Your task to perform on an android device: open a bookmark in the chrome app Image 0: 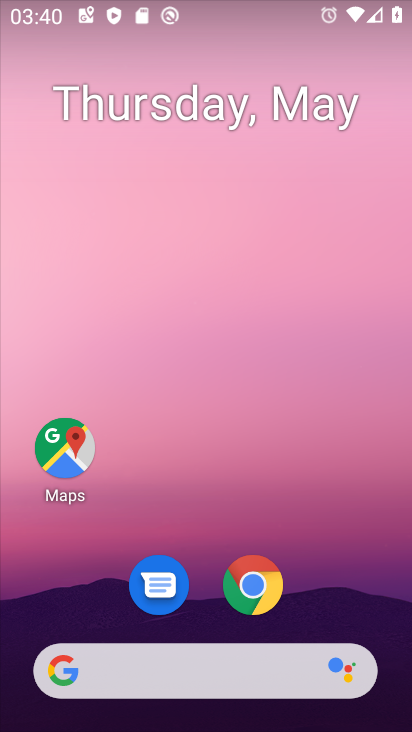
Step 0: click (260, 582)
Your task to perform on an android device: open a bookmark in the chrome app Image 1: 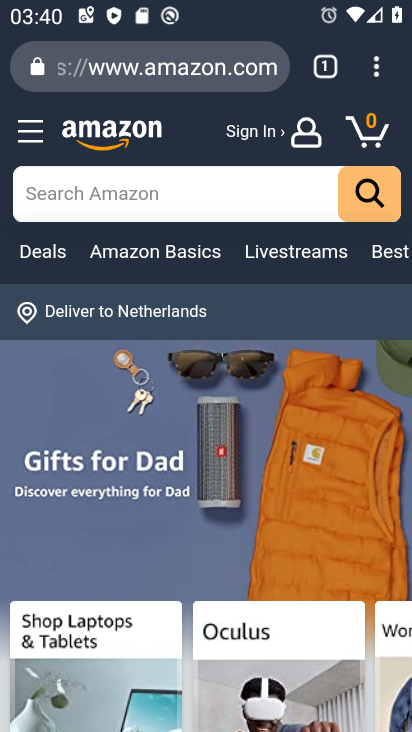
Step 1: click (375, 71)
Your task to perform on an android device: open a bookmark in the chrome app Image 2: 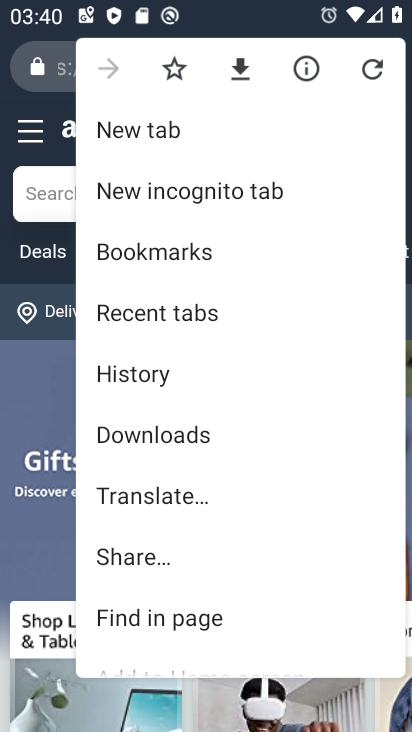
Step 2: click (223, 252)
Your task to perform on an android device: open a bookmark in the chrome app Image 3: 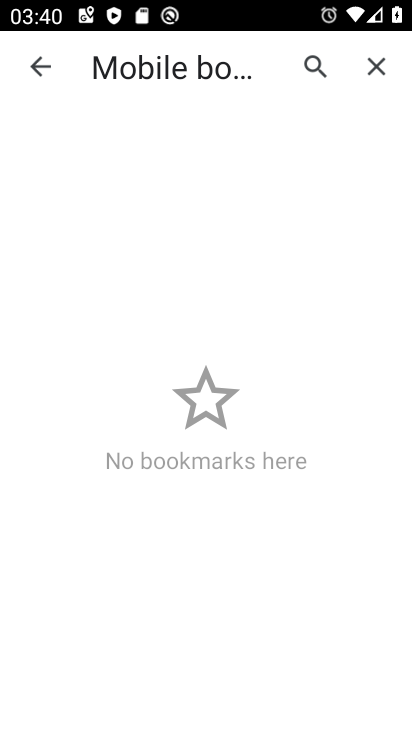
Step 3: task complete